Your task to perform on an android device: open a bookmark in the chrome app Image 0: 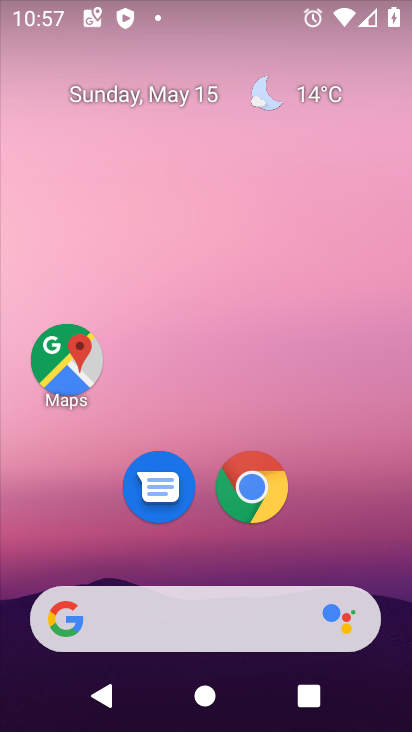
Step 0: click (255, 490)
Your task to perform on an android device: open a bookmark in the chrome app Image 1: 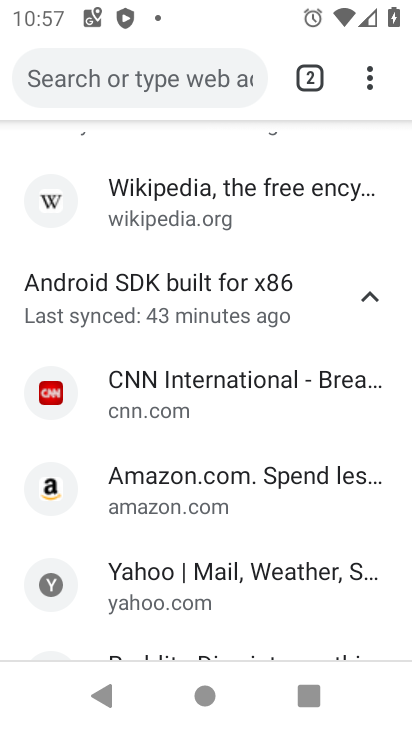
Step 1: click (370, 85)
Your task to perform on an android device: open a bookmark in the chrome app Image 2: 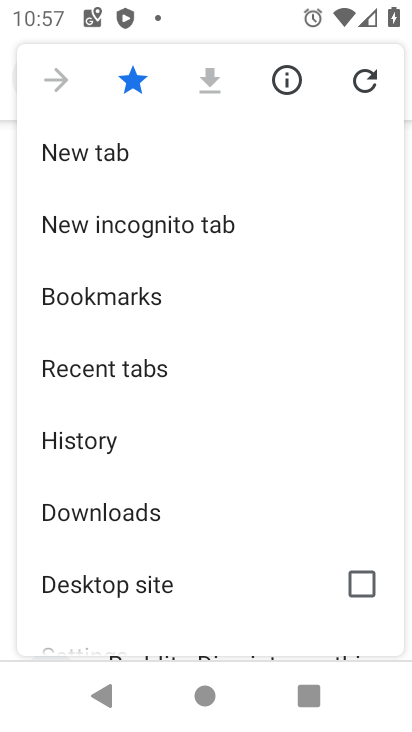
Step 2: click (83, 301)
Your task to perform on an android device: open a bookmark in the chrome app Image 3: 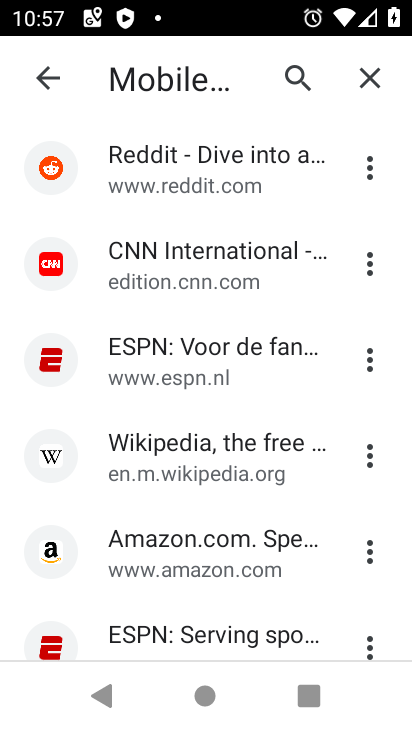
Step 3: task complete